Your task to perform on an android device: Open Youtube and go to "Your channel" Image 0: 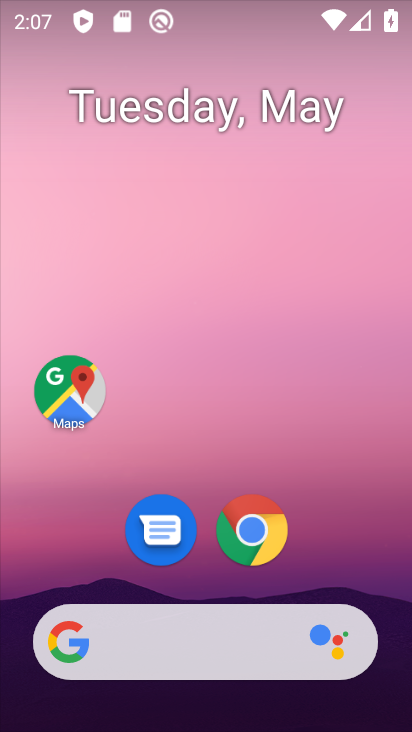
Step 0: drag from (16, 559) to (197, 138)
Your task to perform on an android device: Open Youtube and go to "Your channel" Image 1: 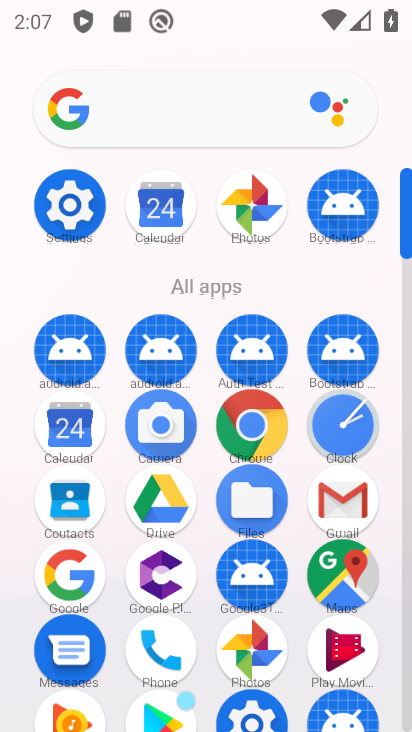
Step 1: drag from (23, 490) to (203, 146)
Your task to perform on an android device: Open Youtube and go to "Your channel" Image 2: 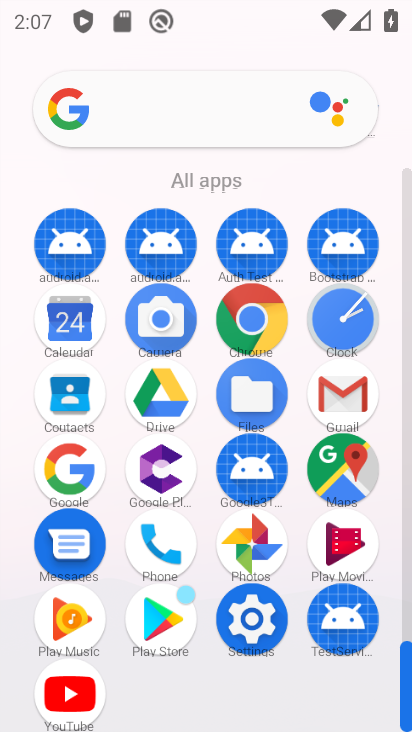
Step 2: click (65, 678)
Your task to perform on an android device: Open Youtube and go to "Your channel" Image 3: 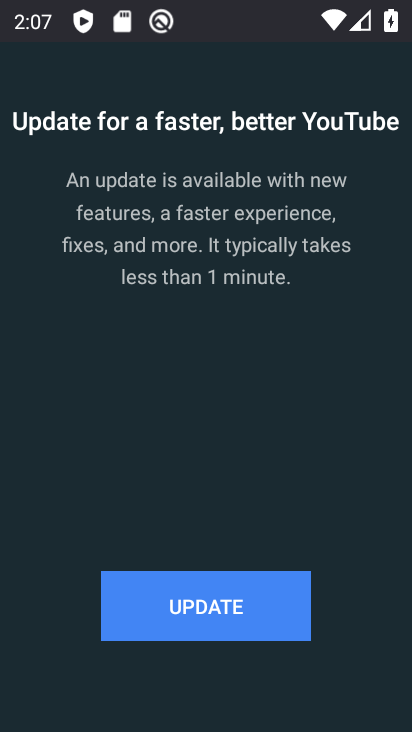
Step 3: task complete